Your task to perform on an android device: Go to privacy settings Image 0: 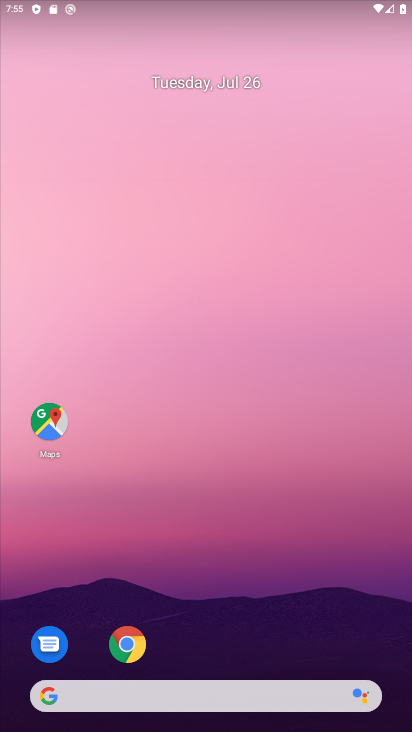
Step 0: drag from (232, 632) to (249, 103)
Your task to perform on an android device: Go to privacy settings Image 1: 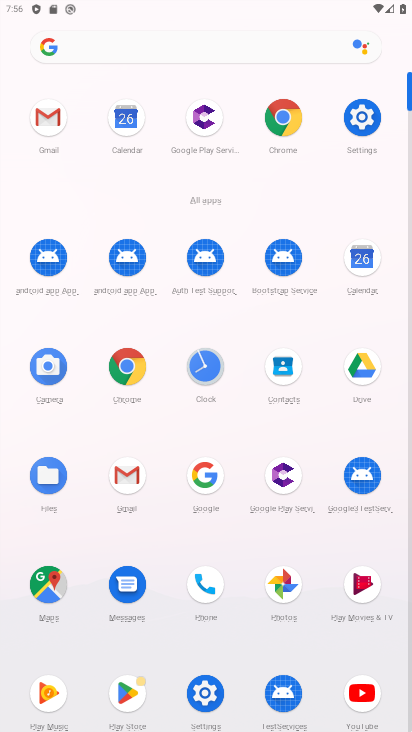
Step 1: click (360, 122)
Your task to perform on an android device: Go to privacy settings Image 2: 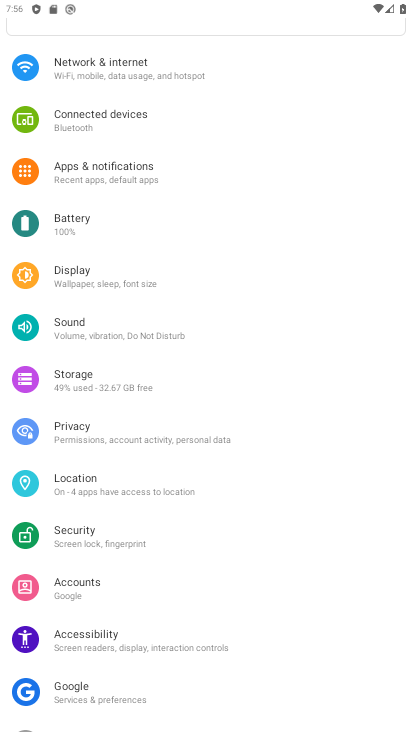
Step 2: click (108, 432)
Your task to perform on an android device: Go to privacy settings Image 3: 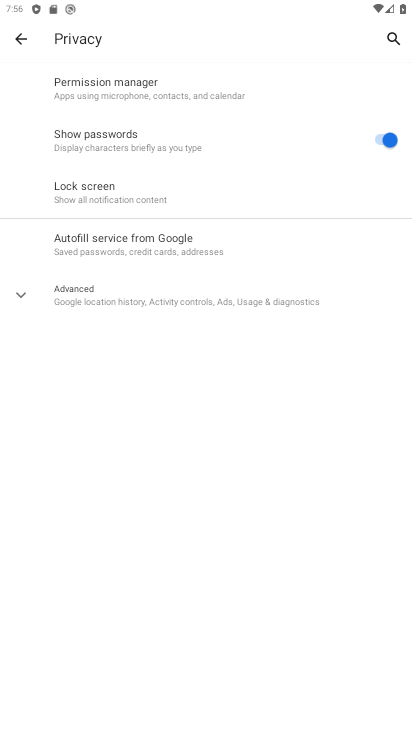
Step 3: task complete